Your task to perform on an android device: Check the news Image 0: 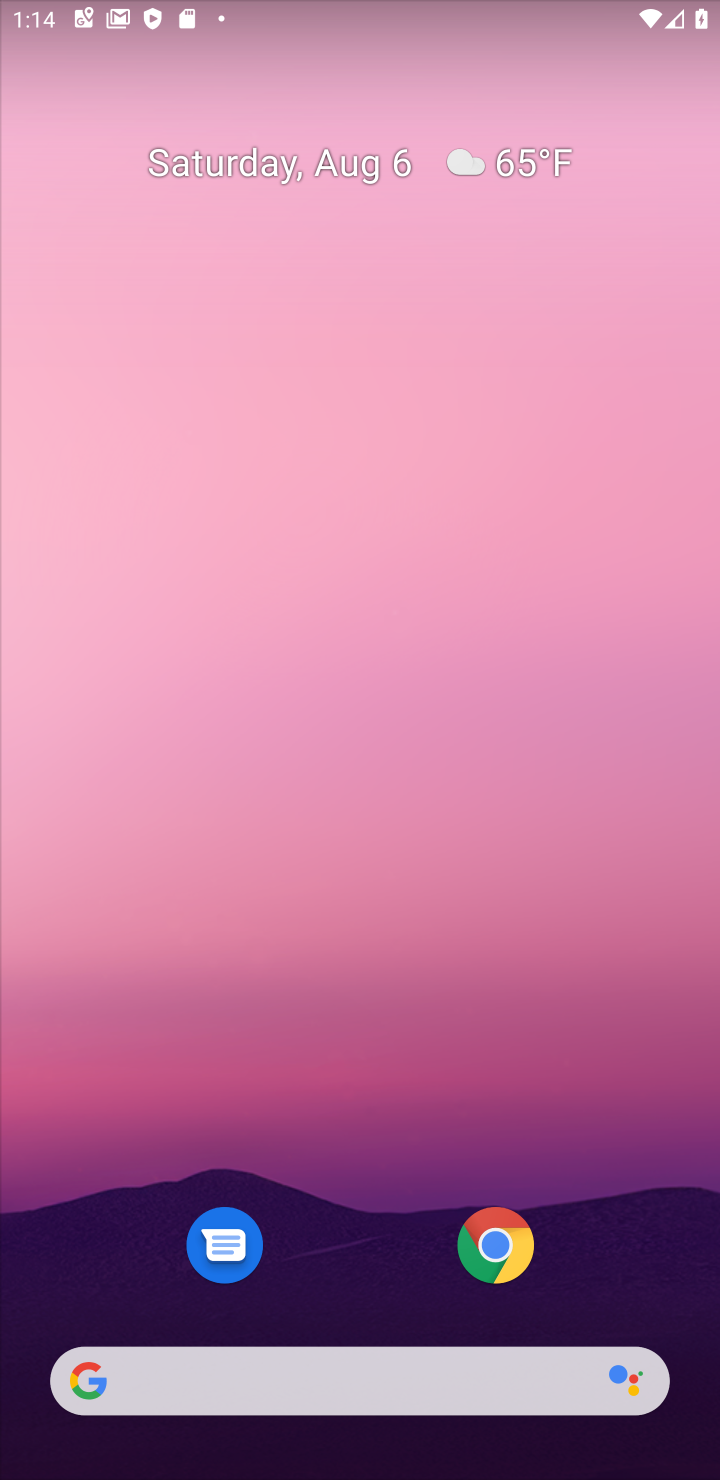
Step 0: click (306, 1359)
Your task to perform on an android device: Check the news Image 1: 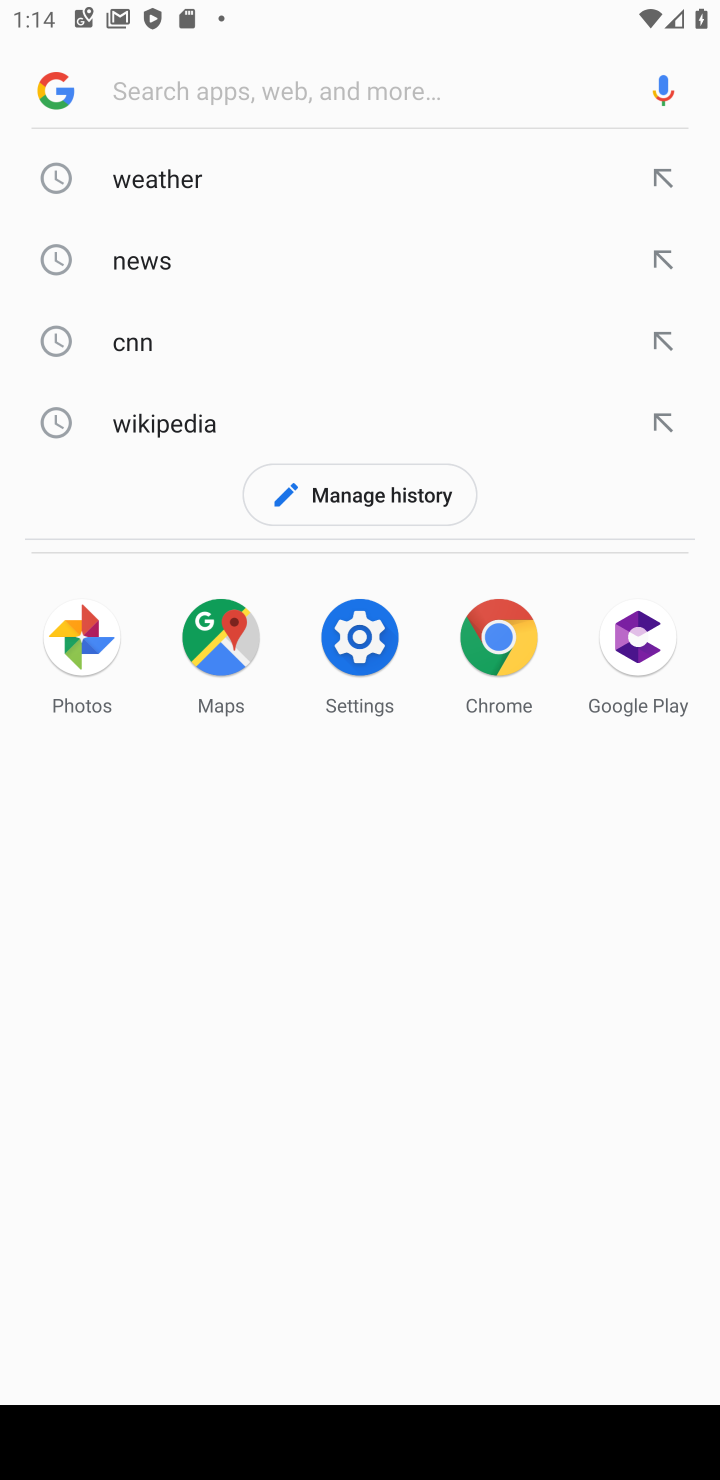
Step 1: type "Check the news"
Your task to perform on an android device: Check the news Image 2: 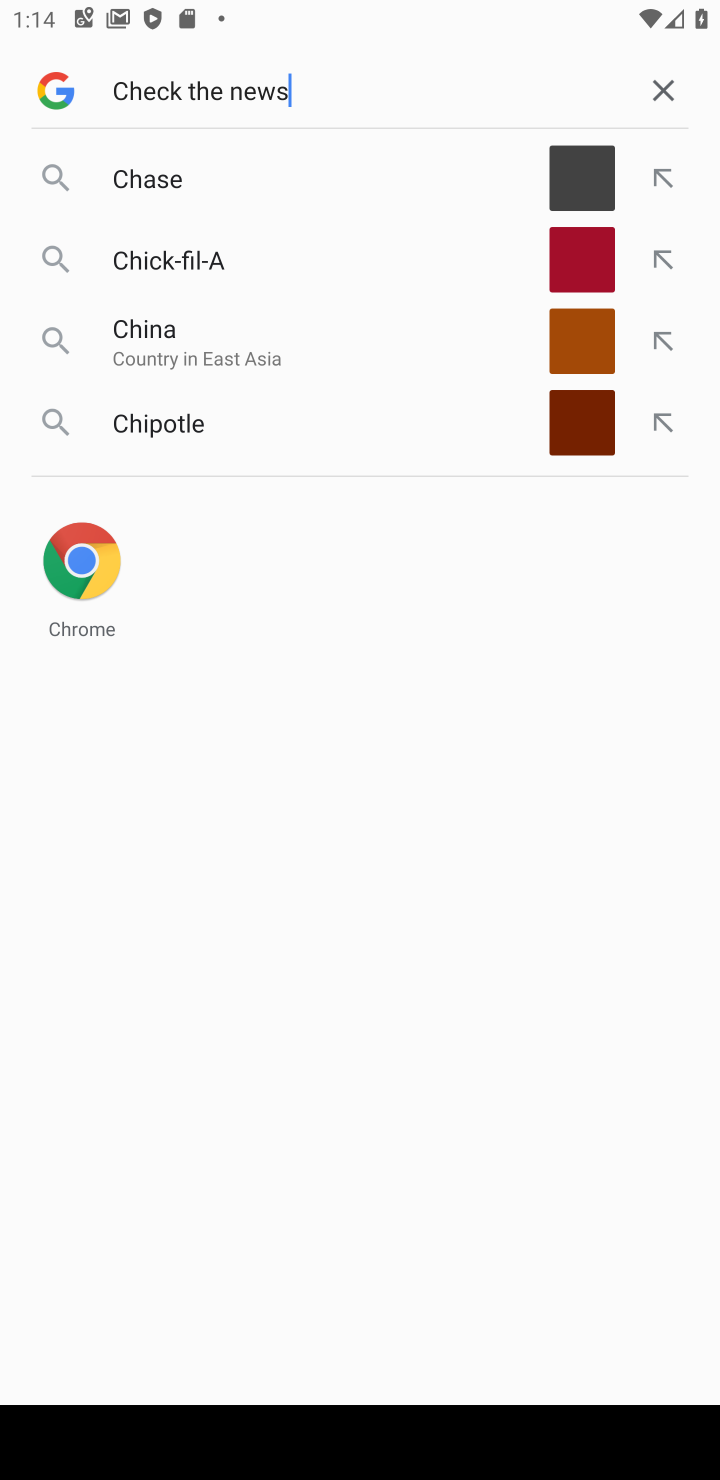
Step 2: type ""
Your task to perform on an android device: Check the news Image 3: 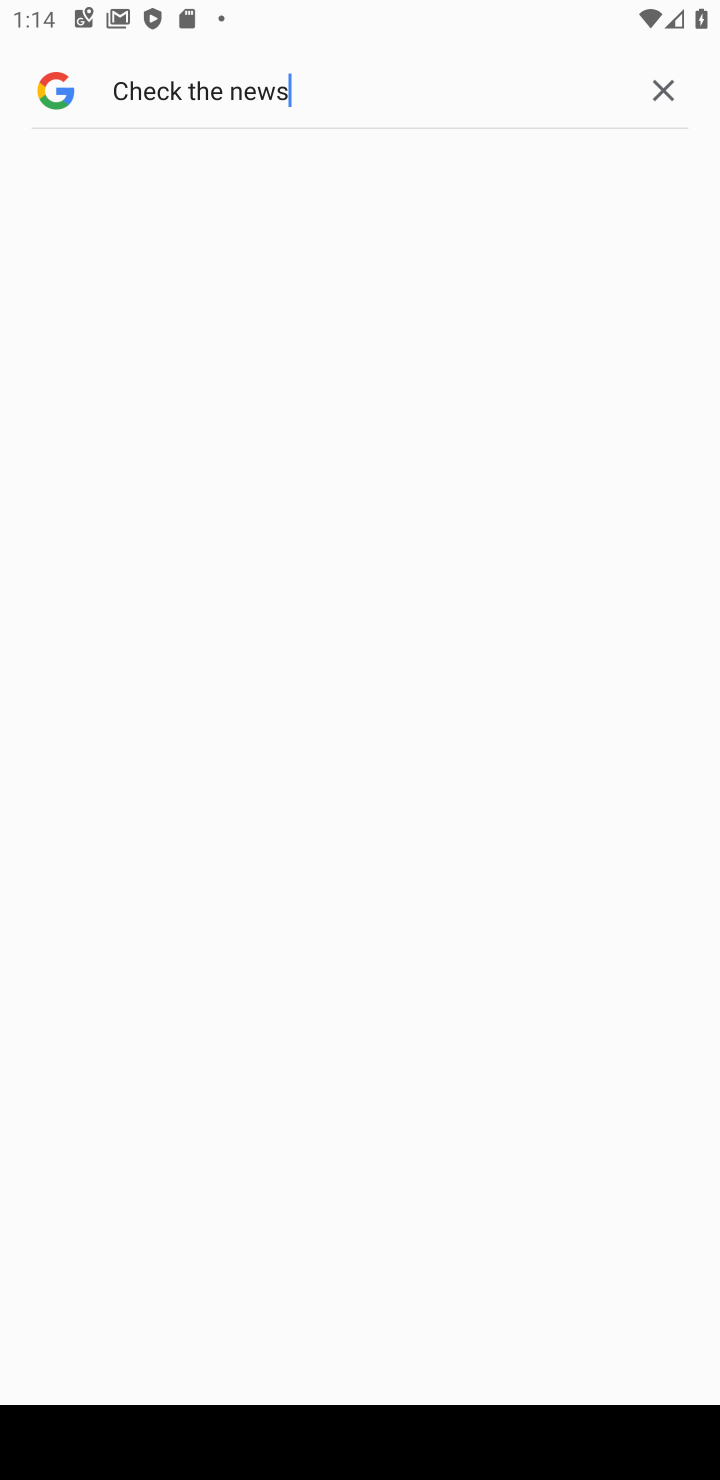
Step 3: press enter
Your task to perform on an android device: Check the news Image 4: 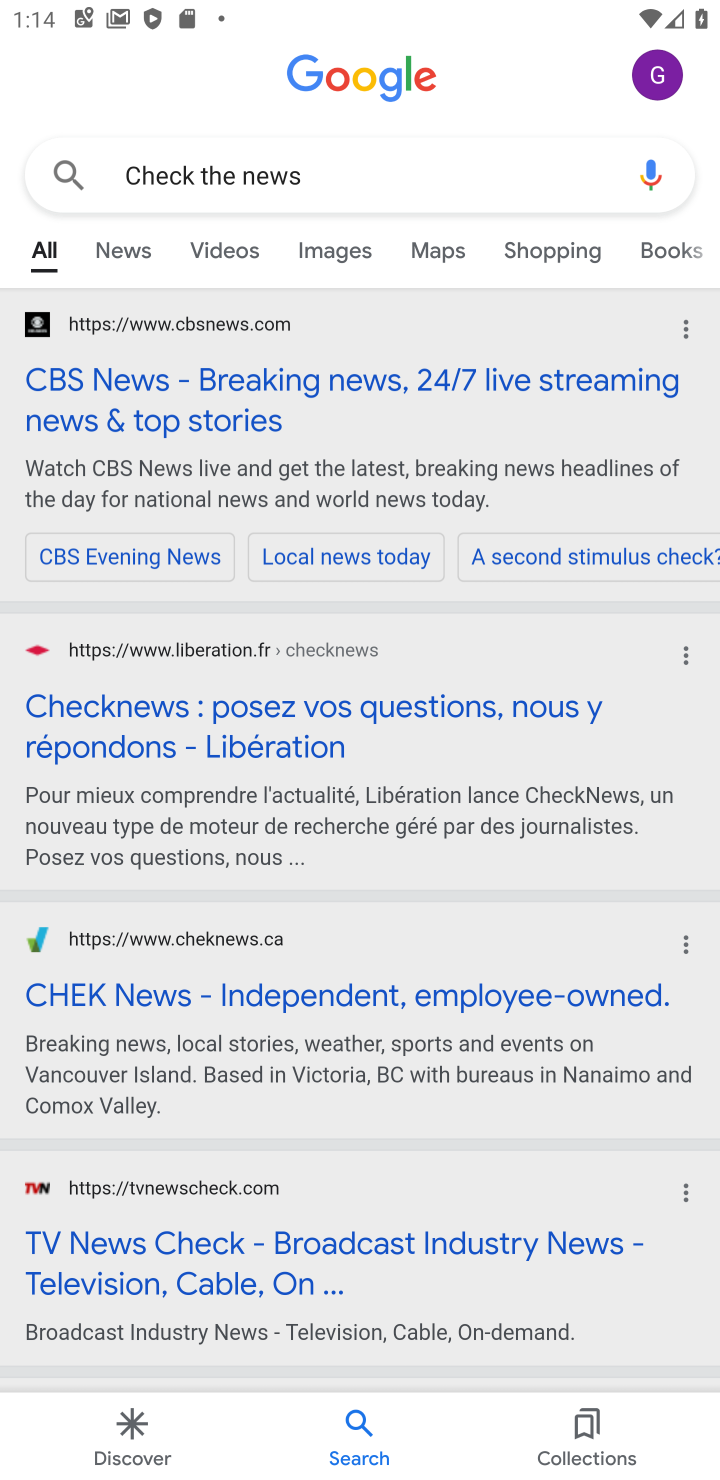
Step 4: task complete